Your task to perform on an android device: Open calendar and show me the fourth week of next month Image 0: 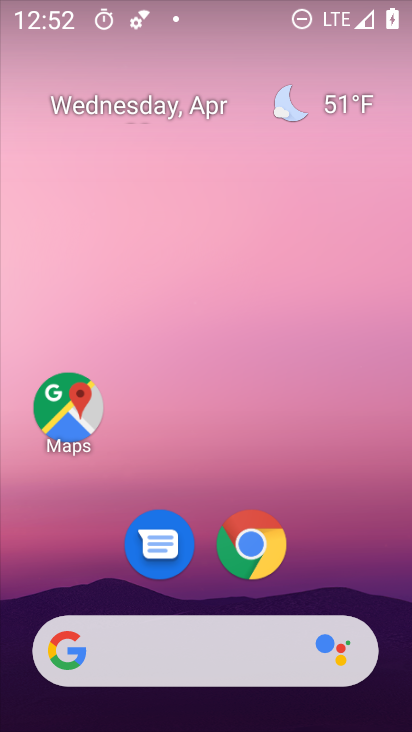
Step 0: drag from (362, 563) to (358, 83)
Your task to perform on an android device: Open calendar and show me the fourth week of next month Image 1: 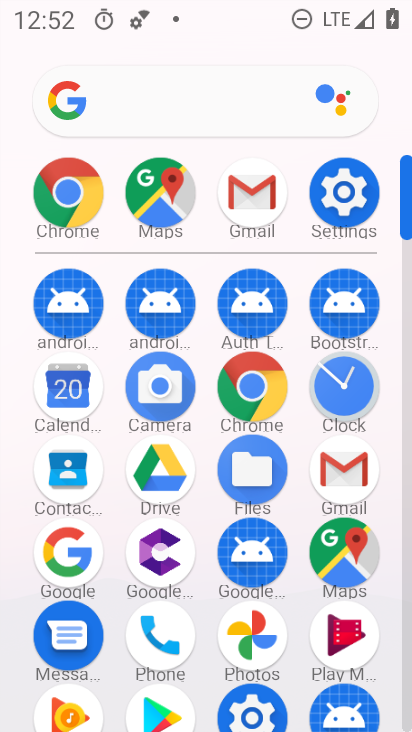
Step 1: click (50, 401)
Your task to perform on an android device: Open calendar and show me the fourth week of next month Image 2: 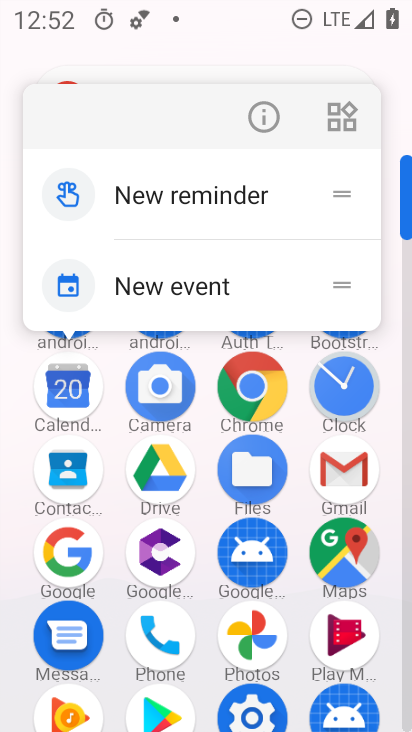
Step 2: click (50, 401)
Your task to perform on an android device: Open calendar and show me the fourth week of next month Image 3: 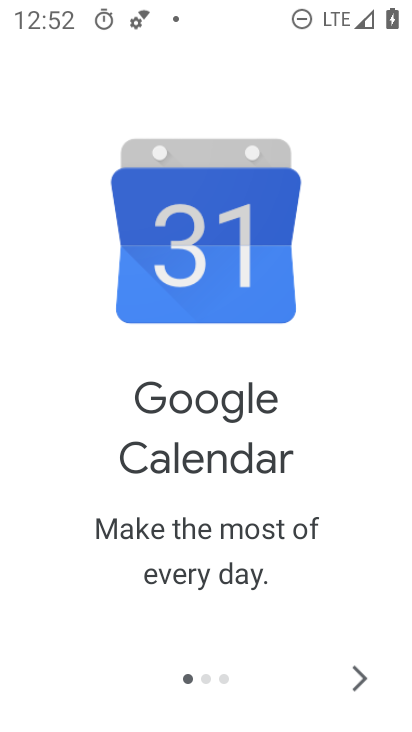
Step 3: click (356, 667)
Your task to perform on an android device: Open calendar and show me the fourth week of next month Image 4: 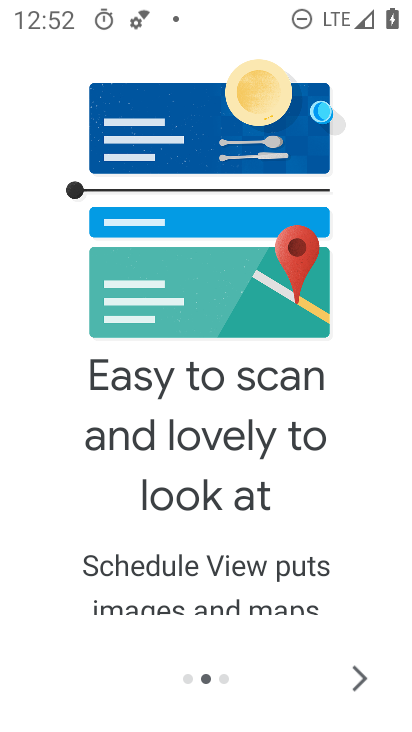
Step 4: click (355, 676)
Your task to perform on an android device: Open calendar and show me the fourth week of next month Image 5: 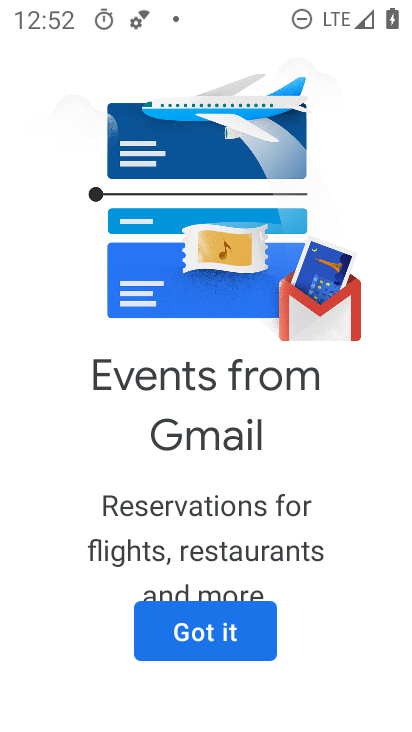
Step 5: click (217, 636)
Your task to perform on an android device: Open calendar and show me the fourth week of next month Image 6: 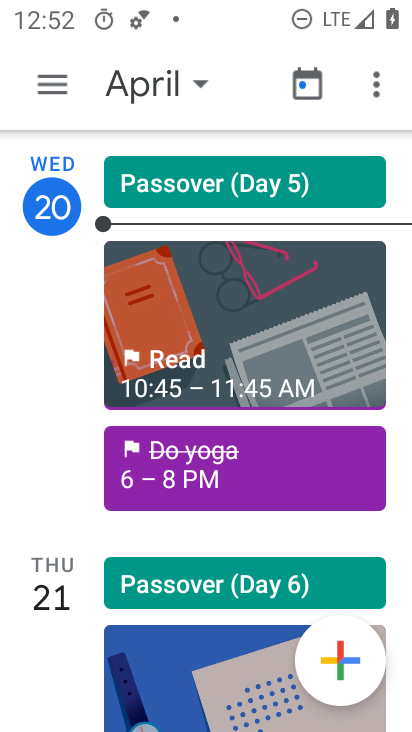
Step 6: click (200, 80)
Your task to perform on an android device: Open calendar and show me the fourth week of next month Image 7: 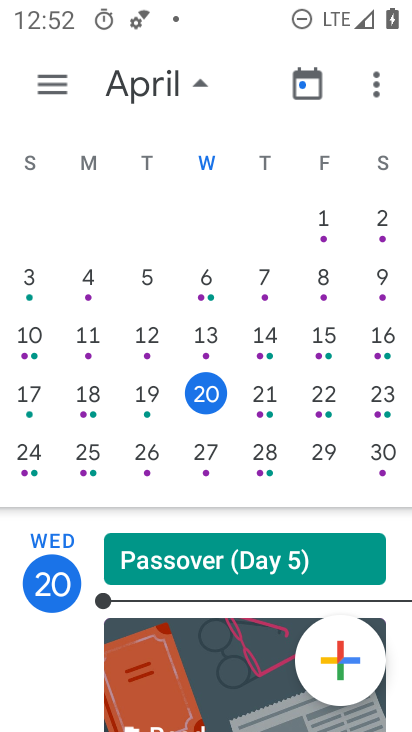
Step 7: drag from (399, 371) to (14, 350)
Your task to perform on an android device: Open calendar and show me the fourth week of next month Image 8: 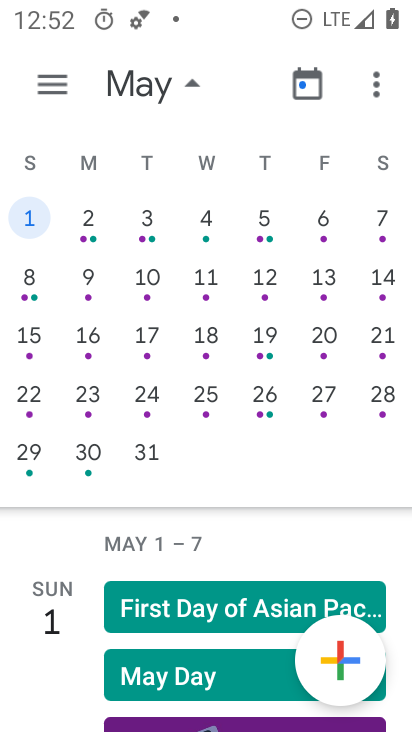
Step 8: click (140, 392)
Your task to perform on an android device: Open calendar and show me the fourth week of next month Image 9: 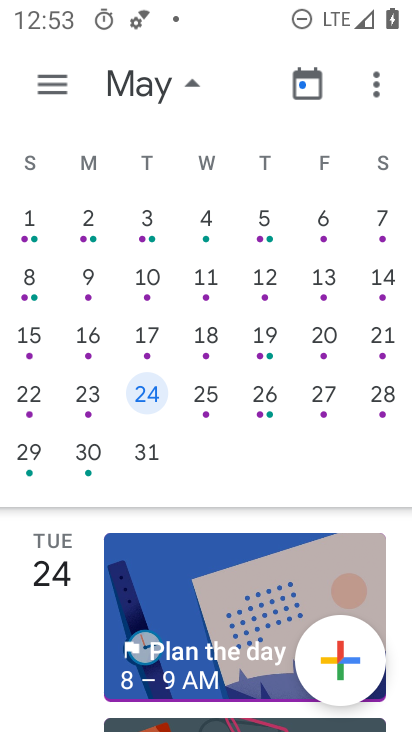
Step 9: task complete